Your task to perform on an android device: install app "Facebook" Image 0: 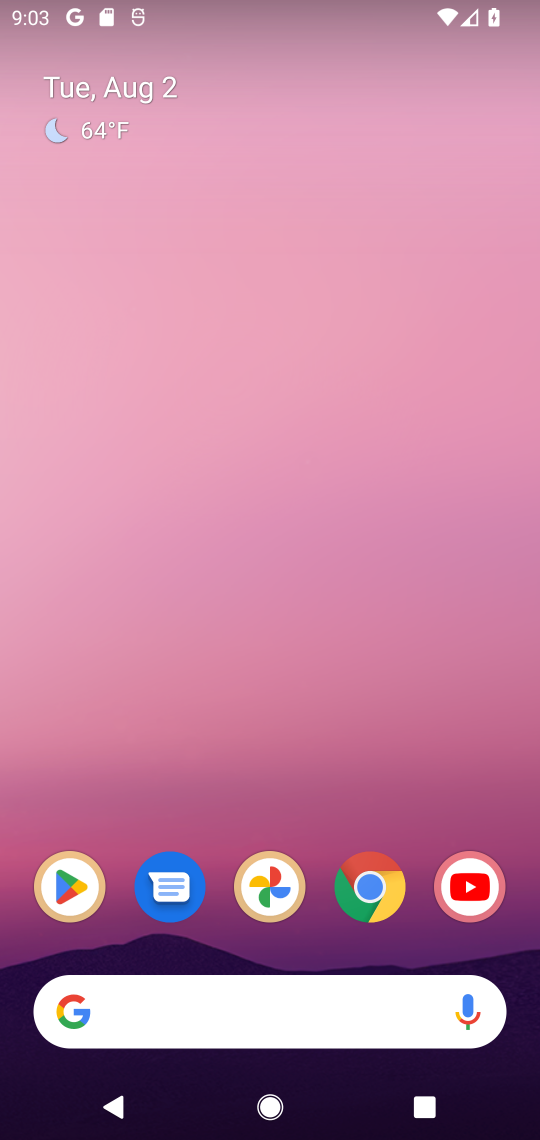
Step 0: click (60, 887)
Your task to perform on an android device: install app "Facebook" Image 1: 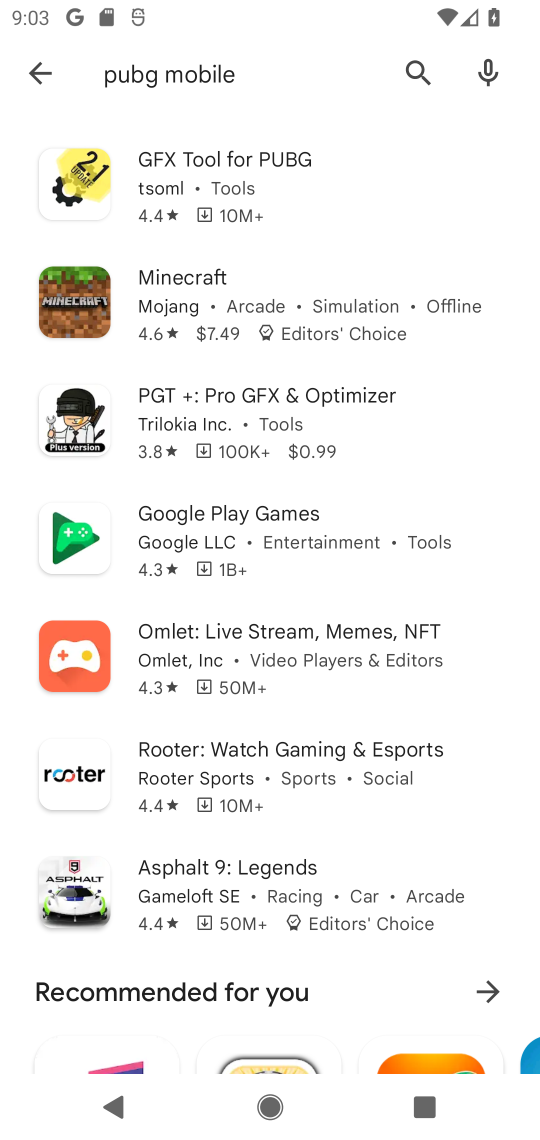
Step 1: click (421, 54)
Your task to perform on an android device: install app "Facebook" Image 2: 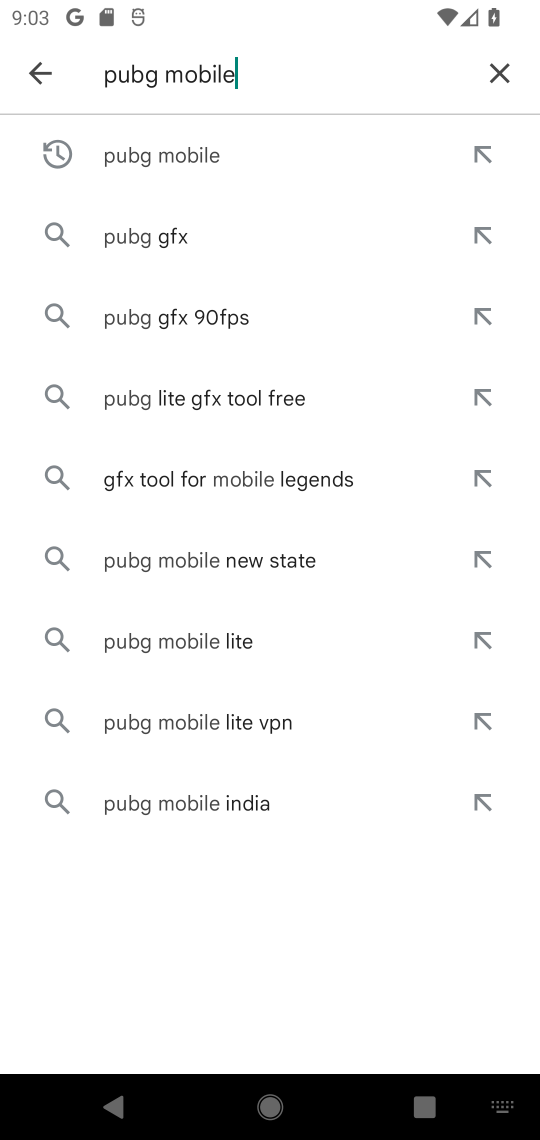
Step 2: click (499, 76)
Your task to perform on an android device: install app "Facebook" Image 3: 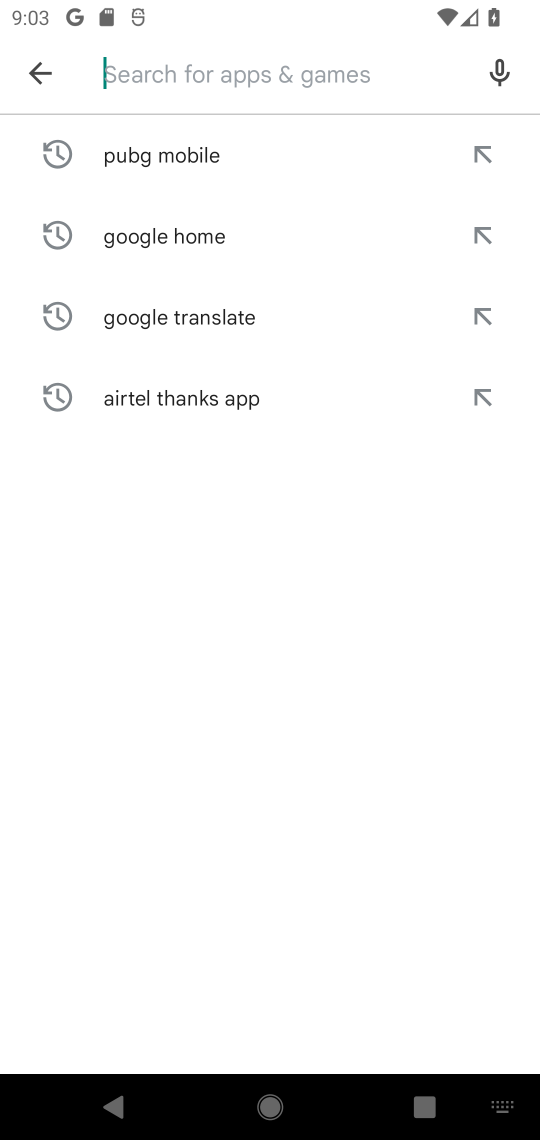
Step 3: type "facebook"
Your task to perform on an android device: install app "Facebook" Image 4: 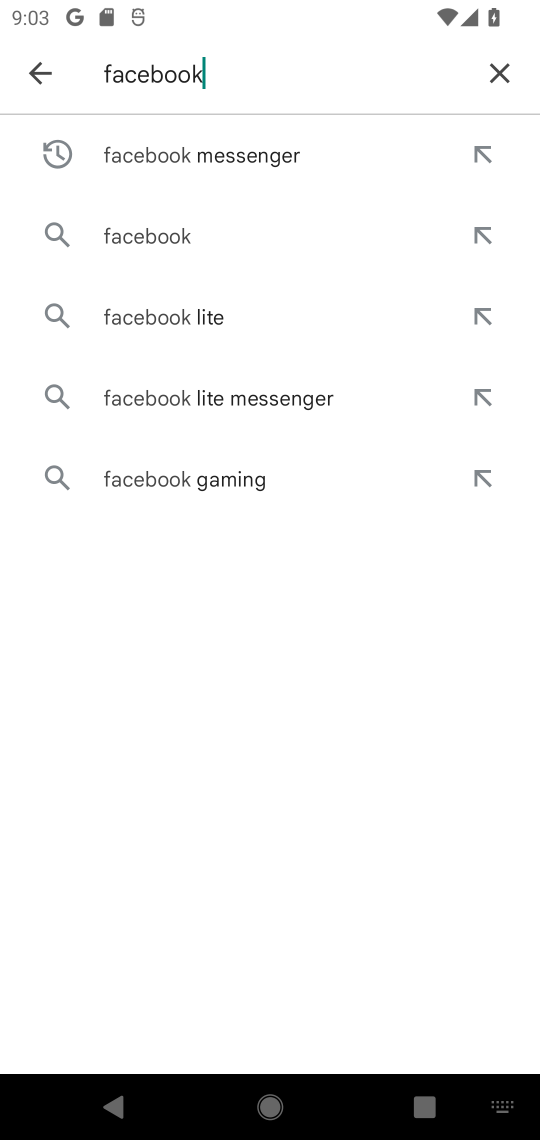
Step 4: click (169, 242)
Your task to perform on an android device: install app "Facebook" Image 5: 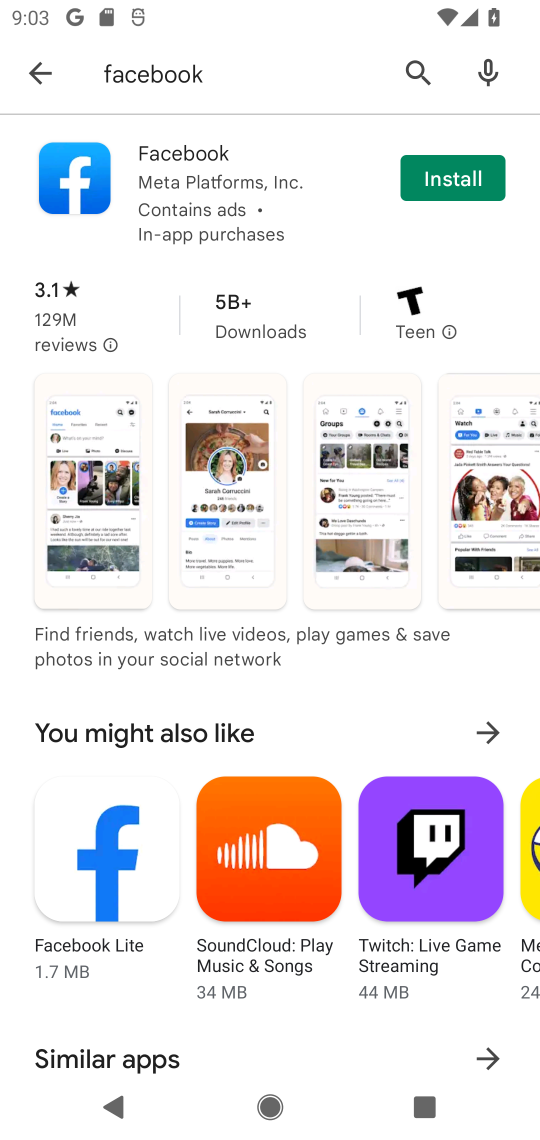
Step 5: click (218, 150)
Your task to perform on an android device: install app "Facebook" Image 6: 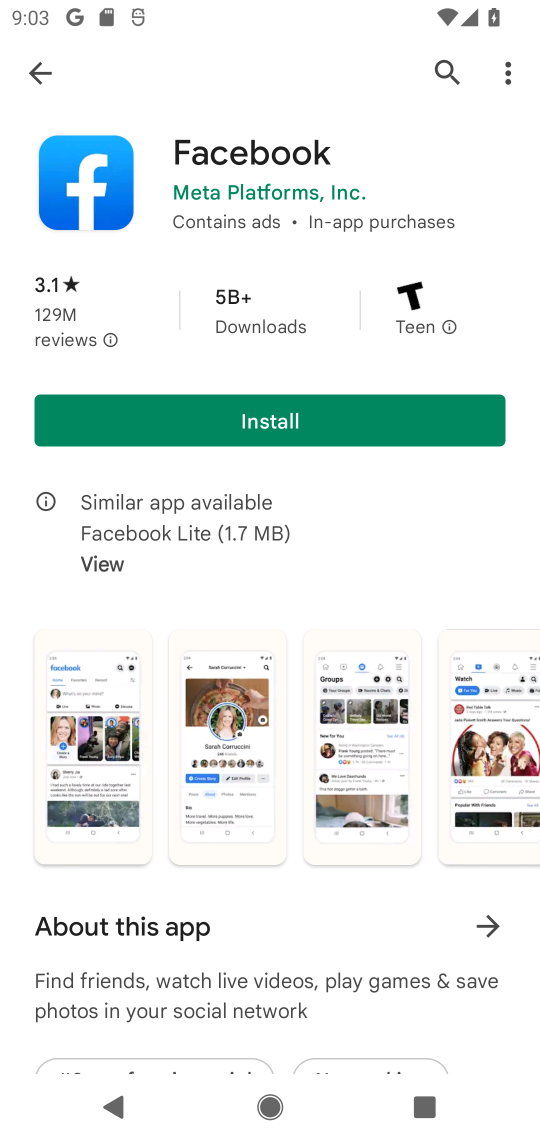
Step 6: click (288, 413)
Your task to perform on an android device: install app "Facebook" Image 7: 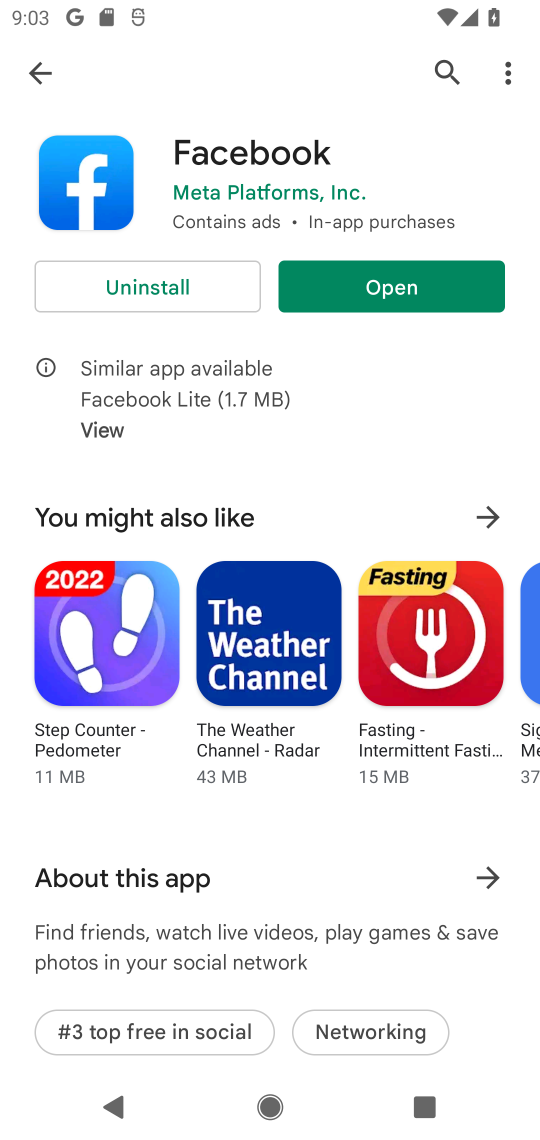
Step 7: task complete